Your task to perform on an android device: Open Youtube and go to the subscriptions tab Image 0: 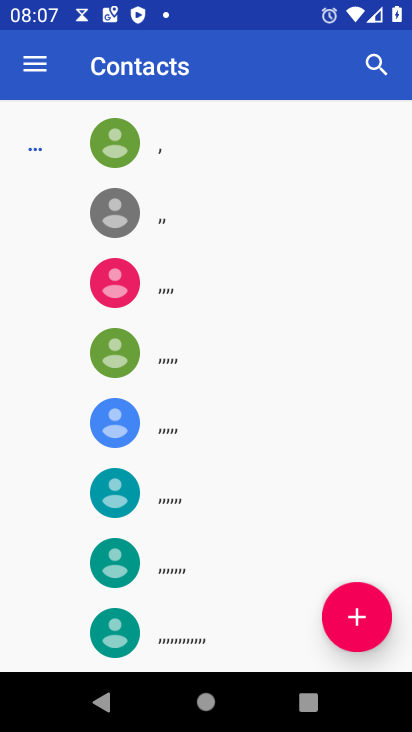
Step 0: press home button
Your task to perform on an android device: Open Youtube and go to the subscriptions tab Image 1: 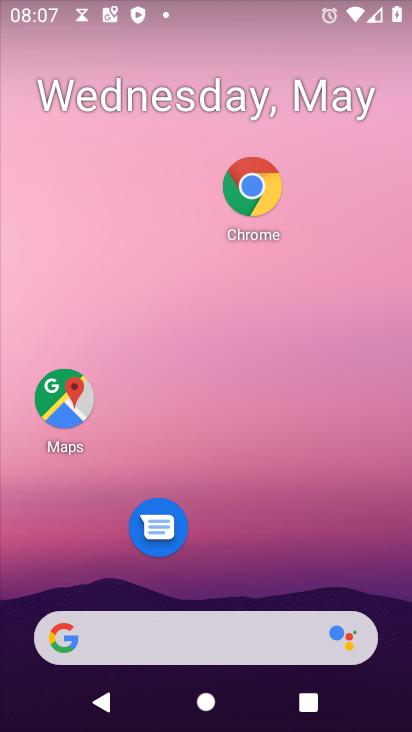
Step 1: drag from (223, 531) to (264, 119)
Your task to perform on an android device: Open Youtube and go to the subscriptions tab Image 2: 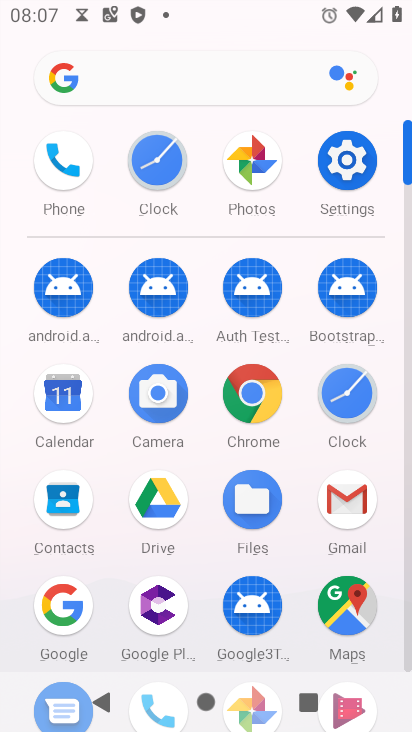
Step 2: drag from (291, 239) to (291, 46)
Your task to perform on an android device: Open Youtube and go to the subscriptions tab Image 3: 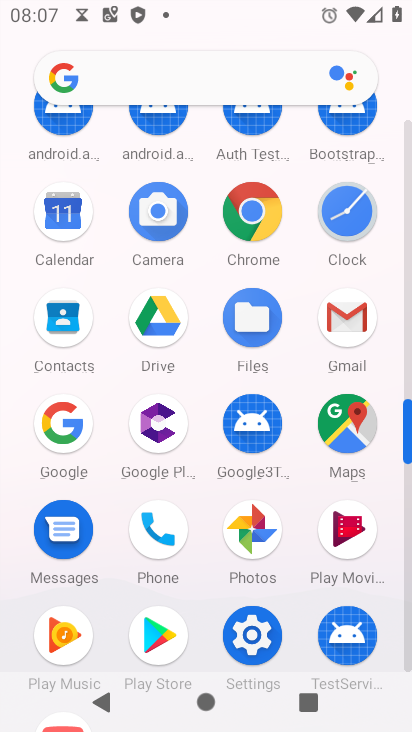
Step 3: drag from (305, 277) to (299, 58)
Your task to perform on an android device: Open Youtube and go to the subscriptions tab Image 4: 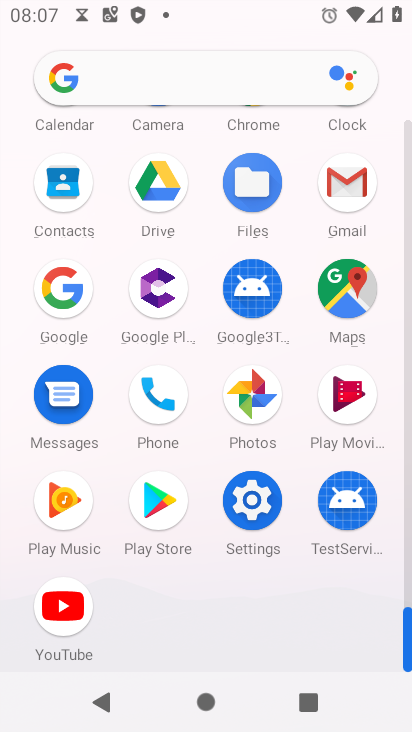
Step 4: click (63, 604)
Your task to perform on an android device: Open Youtube and go to the subscriptions tab Image 5: 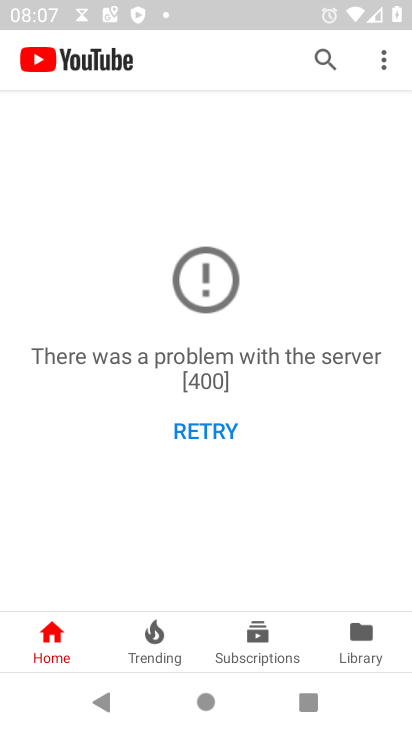
Step 5: click (248, 630)
Your task to perform on an android device: Open Youtube and go to the subscriptions tab Image 6: 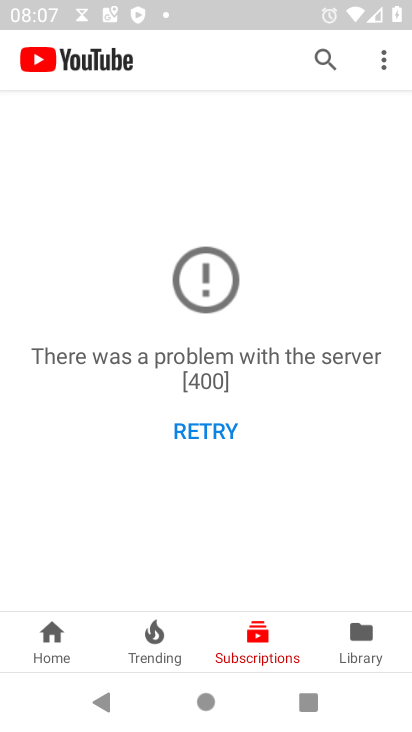
Step 6: task complete